Your task to perform on an android device: find photos in the google photos app Image 0: 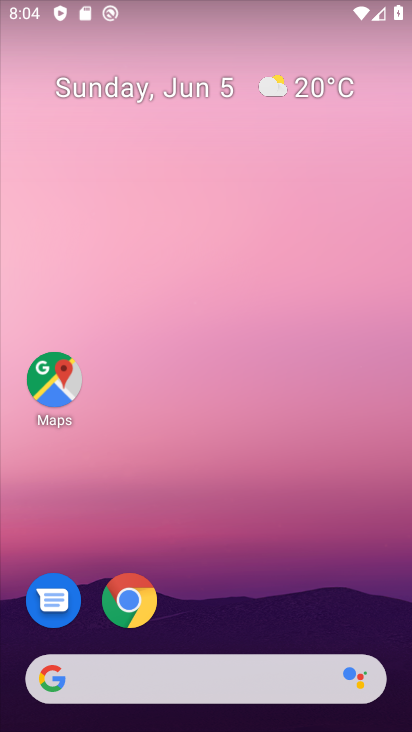
Step 0: drag from (342, 523) to (252, 82)
Your task to perform on an android device: find photos in the google photos app Image 1: 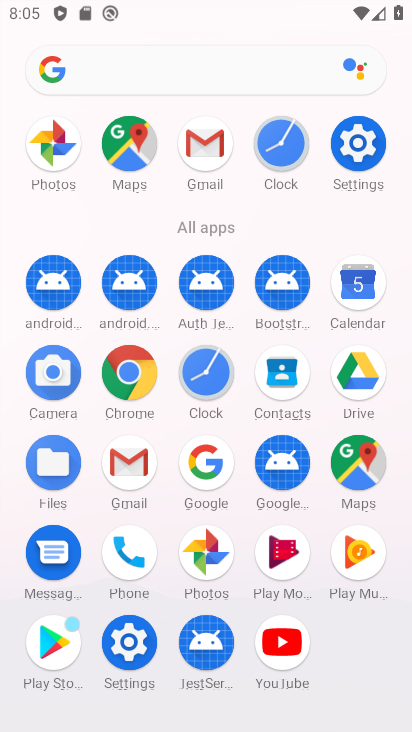
Step 1: click (192, 547)
Your task to perform on an android device: find photos in the google photos app Image 2: 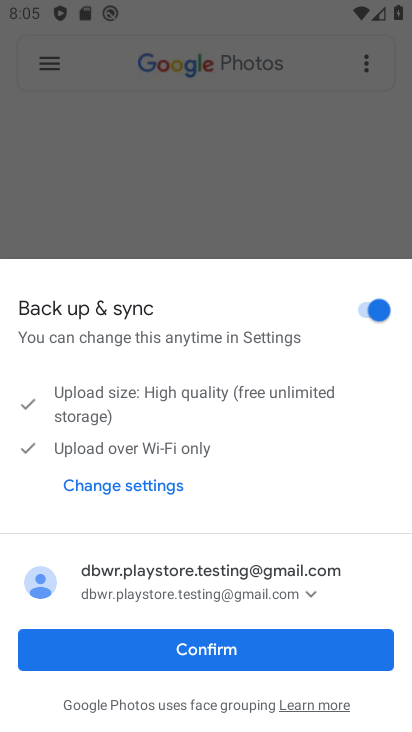
Step 2: click (254, 656)
Your task to perform on an android device: find photos in the google photos app Image 3: 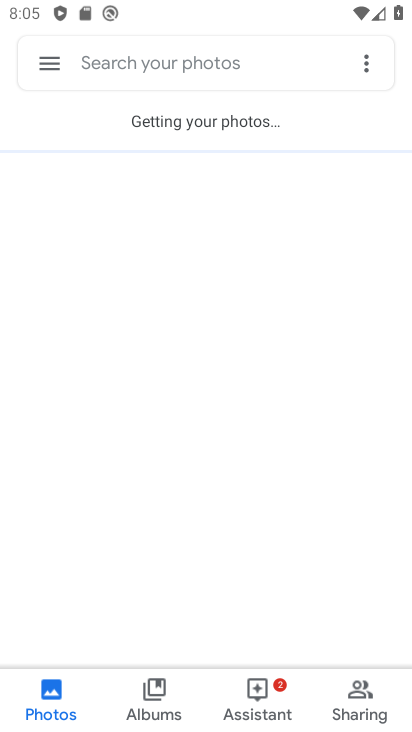
Step 3: task complete